Your task to perform on an android device: turn on location history Image 0: 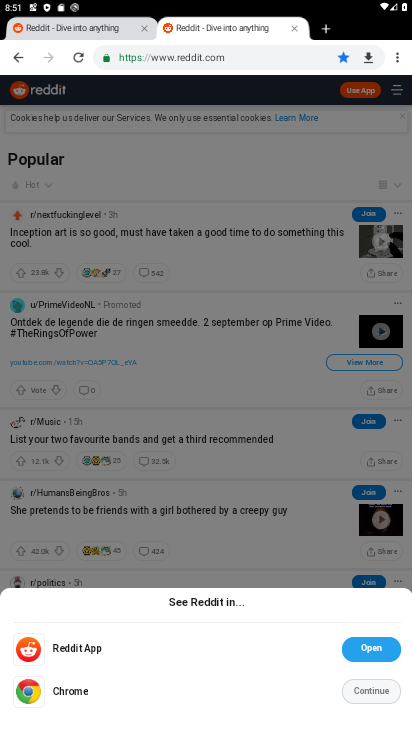
Step 0: press home button
Your task to perform on an android device: turn on location history Image 1: 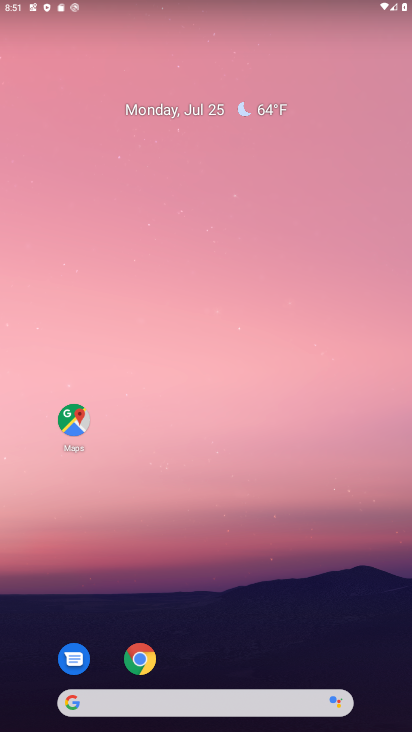
Step 1: drag from (330, 633) to (346, 143)
Your task to perform on an android device: turn on location history Image 2: 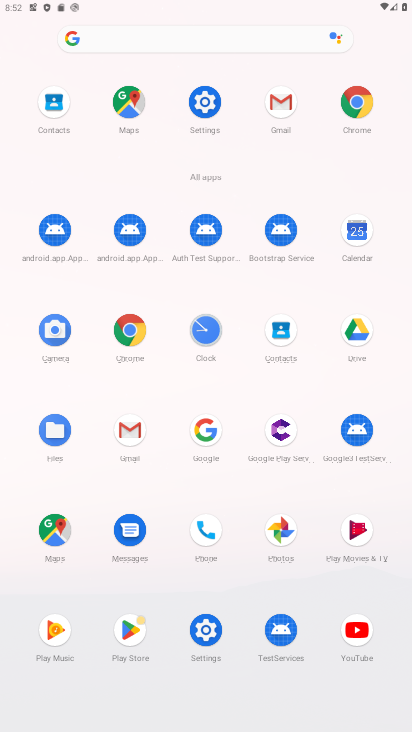
Step 2: click (205, 637)
Your task to perform on an android device: turn on location history Image 3: 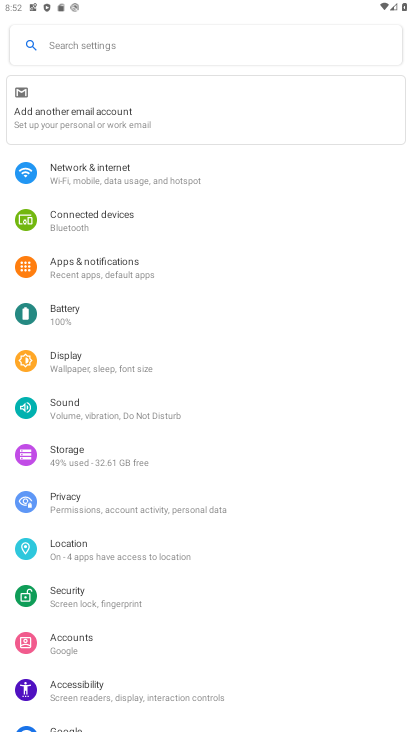
Step 3: drag from (317, 571) to (324, 466)
Your task to perform on an android device: turn on location history Image 4: 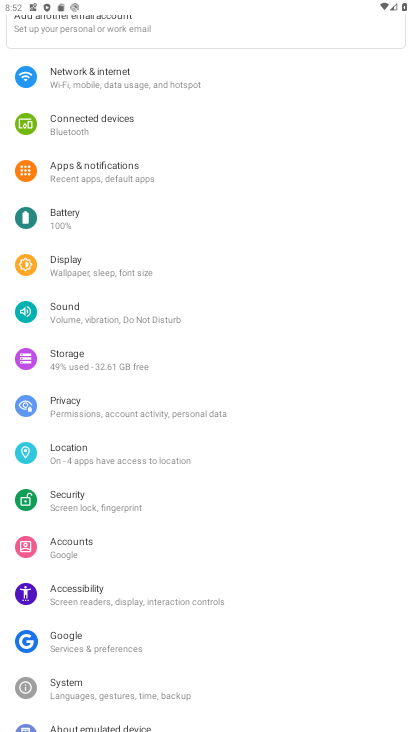
Step 4: drag from (319, 597) to (322, 461)
Your task to perform on an android device: turn on location history Image 5: 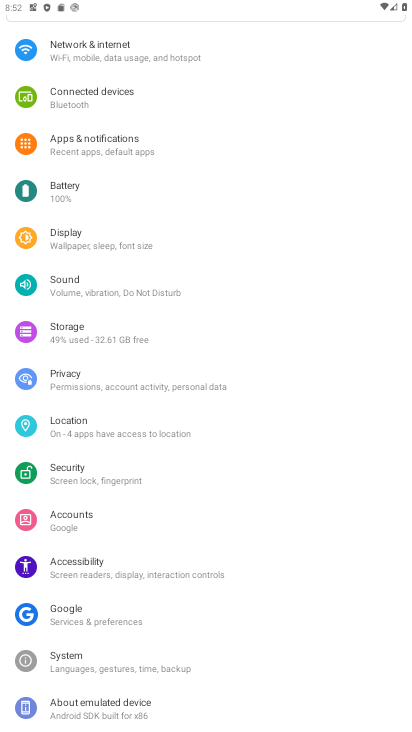
Step 5: drag from (297, 605) to (279, 487)
Your task to perform on an android device: turn on location history Image 6: 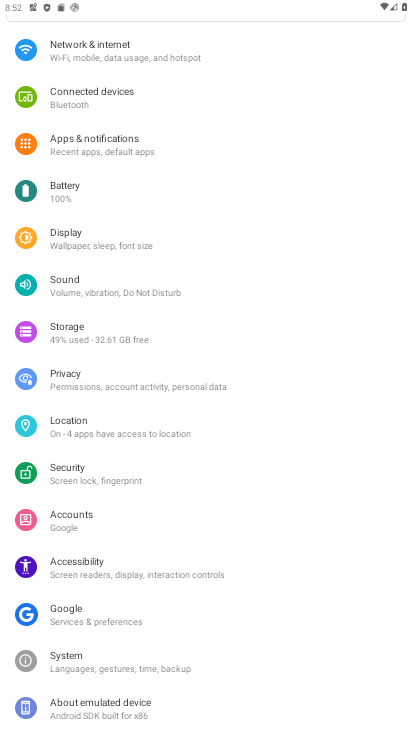
Step 6: click (166, 426)
Your task to perform on an android device: turn on location history Image 7: 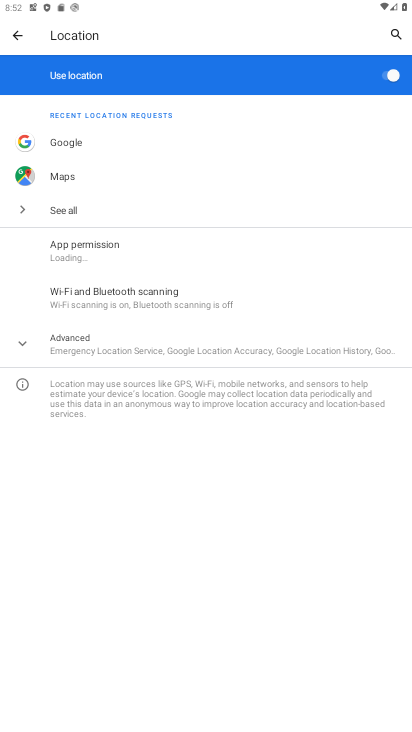
Step 7: click (166, 360)
Your task to perform on an android device: turn on location history Image 8: 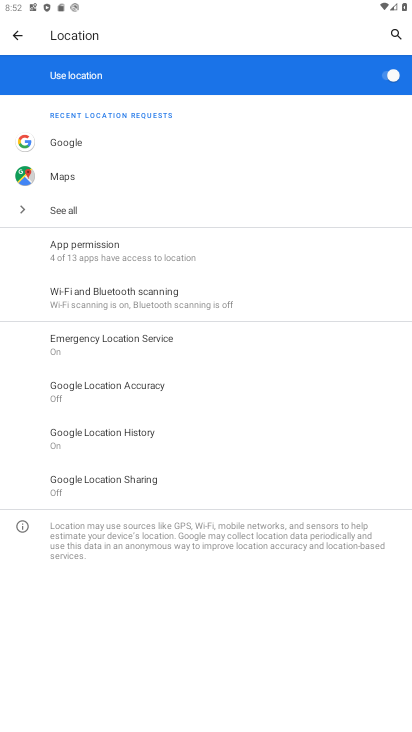
Step 8: task complete